Your task to perform on an android device: Go to privacy settings Image 0: 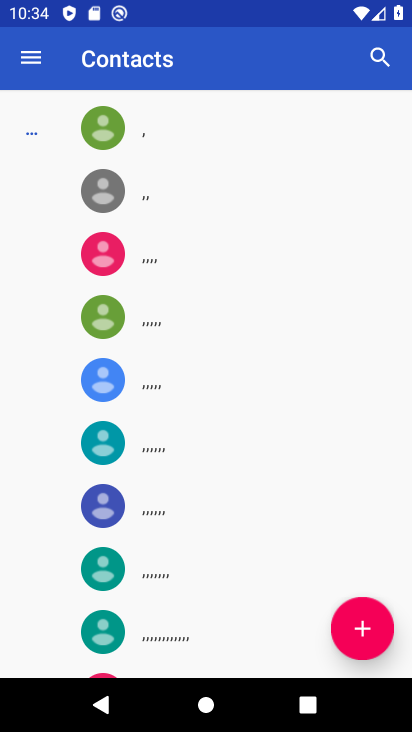
Step 0: press home button
Your task to perform on an android device: Go to privacy settings Image 1: 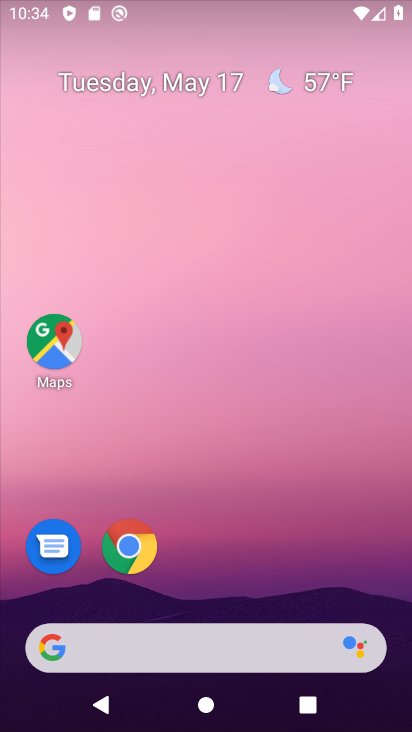
Step 1: drag from (288, 591) to (298, 167)
Your task to perform on an android device: Go to privacy settings Image 2: 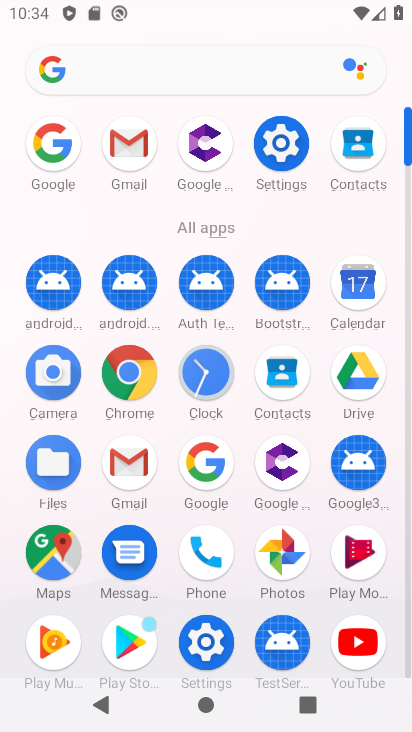
Step 2: click (271, 159)
Your task to perform on an android device: Go to privacy settings Image 3: 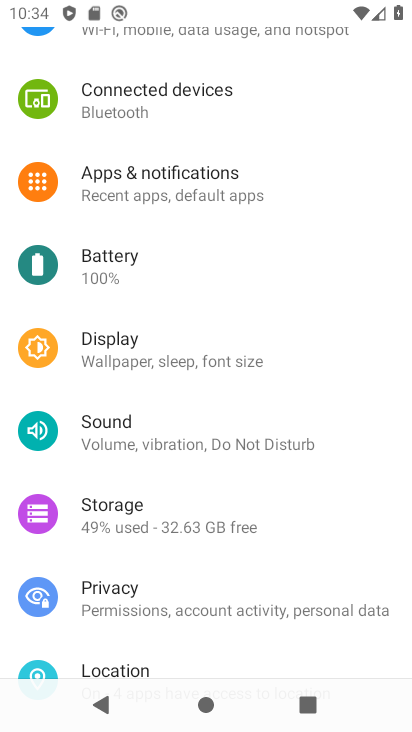
Step 3: drag from (286, 189) to (288, 601)
Your task to perform on an android device: Go to privacy settings Image 4: 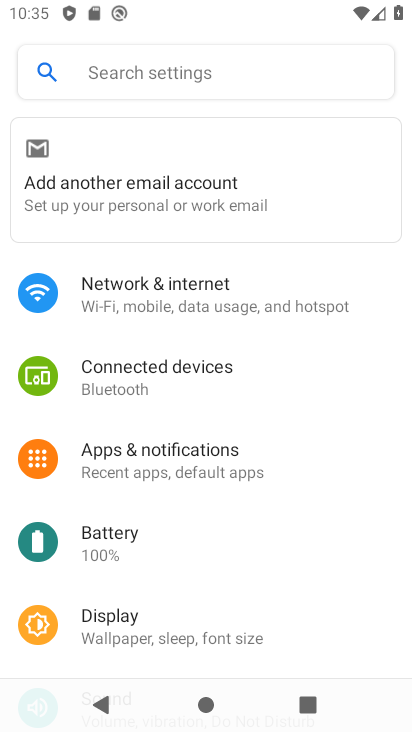
Step 4: drag from (242, 627) to (278, 197)
Your task to perform on an android device: Go to privacy settings Image 5: 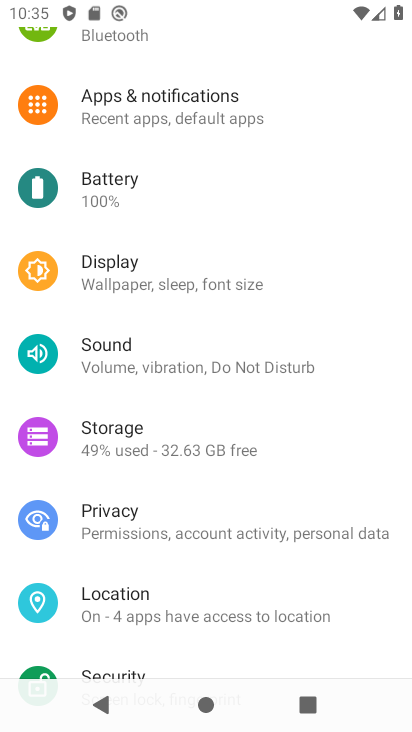
Step 5: click (205, 526)
Your task to perform on an android device: Go to privacy settings Image 6: 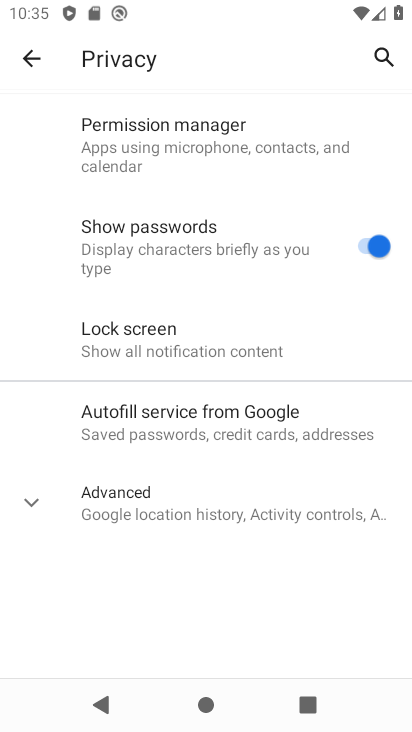
Step 6: task complete